Your task to perform on an android device: toggle notification dots Image 0: 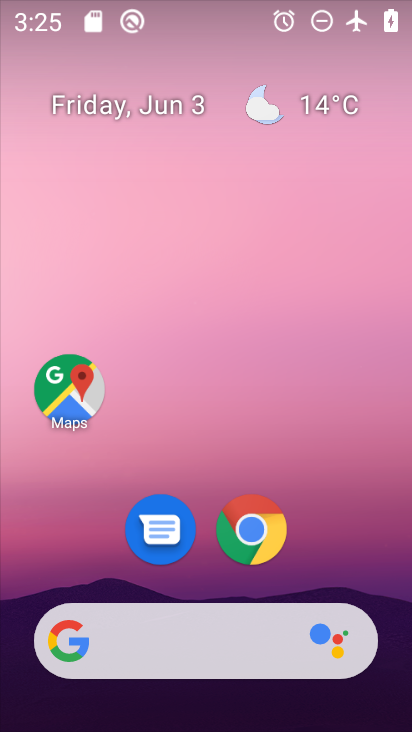
Step 0: drag from (354, 545) to (347, 159)
Your task to perform on an android device: toggle notification dots Image 1: 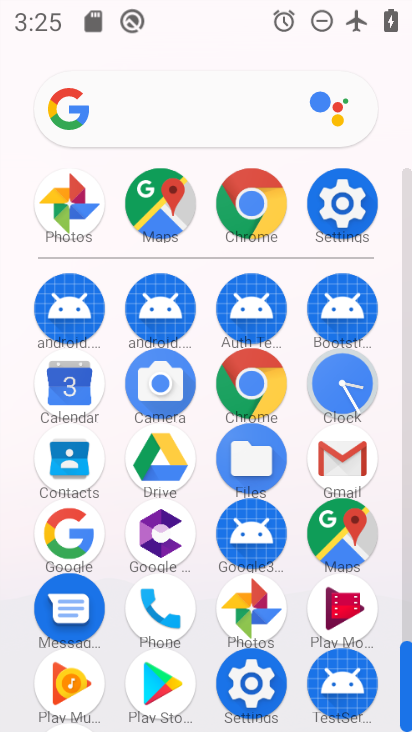
Step 1: click (341, 217)
Your task to perform on an android device: toggle notification dots Image 2: 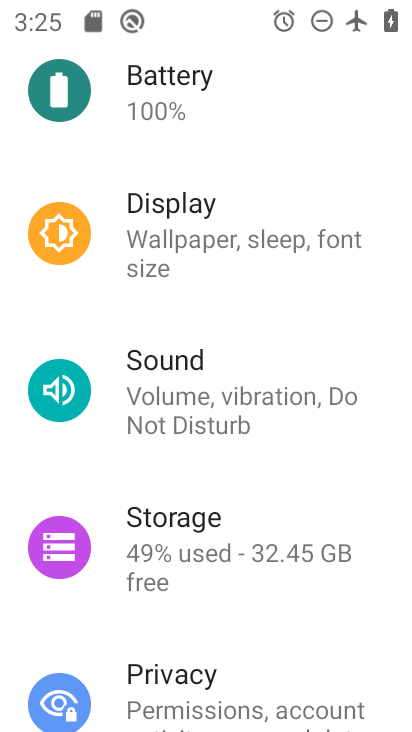
Step 2: drag from (370, 292) to (371, 394)
Your task to perform on an android device: toggle notification dots Image 3: 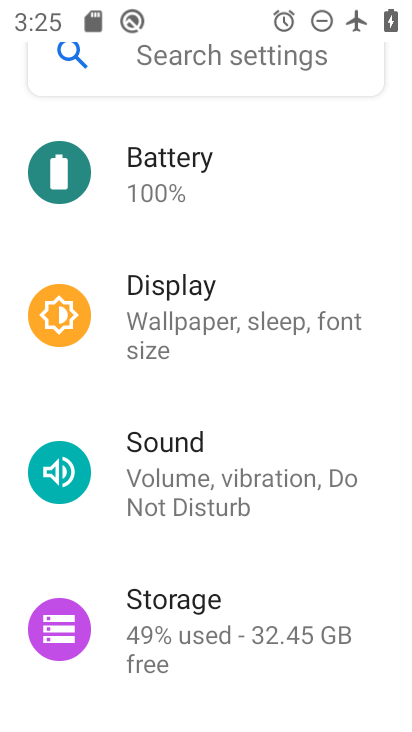
Step 3: drag from (369, 256) to (369, 369)
Your task to perform on an android device: toggle notification dots Image 4: 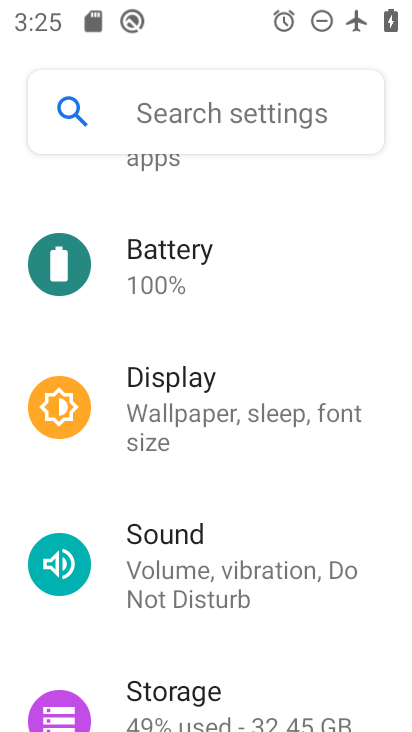
Step 4: drag from (374, 242) to (371, 354)
Your task to perform on an android device: toggle notification dots Image 5: 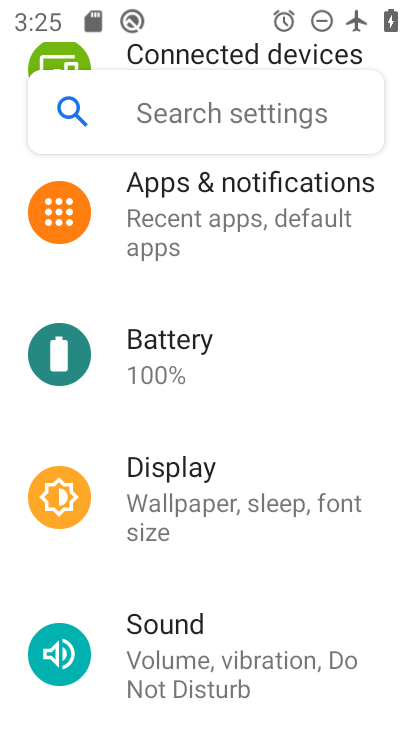
Step 5: drag from (361, 210) to (353, 357)
Your task to perform on an android device: toggle notification dots Image 6: 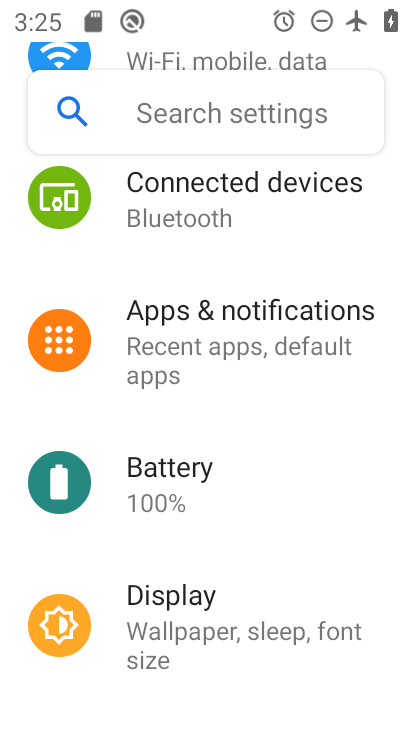
Step 6: click (269, 331)
Your task to perform on an android device: toggle notification dots Image 7: 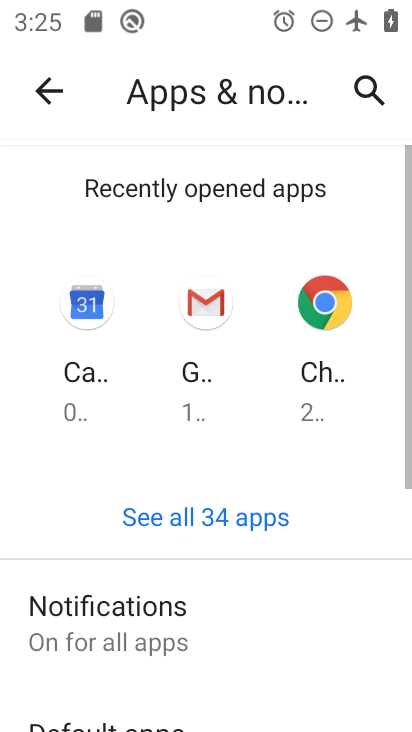
Step 7: drag from (279, 599) to (275, 364)
Your task to perform on an android device: toggle notification dots Image 8: 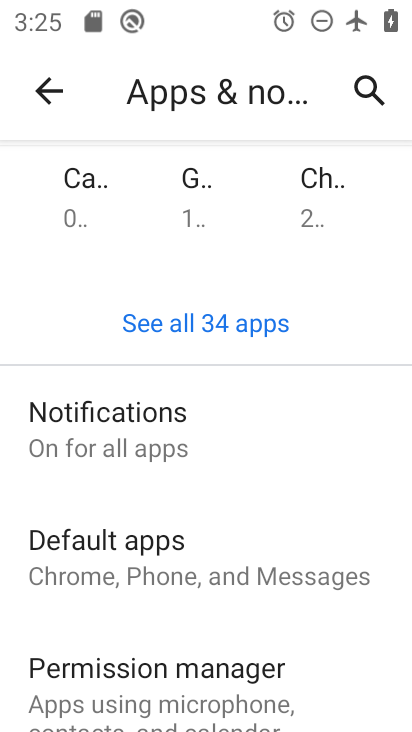
Step 8: click (128, 452)
Your task to perform on an android device: toggle notification dots Image 9: 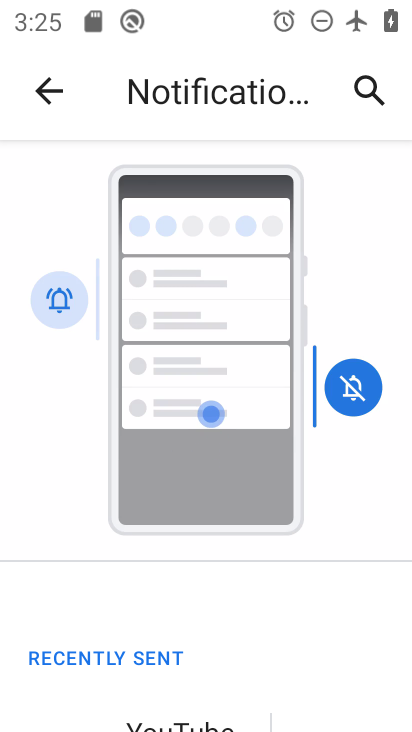
Step 9: drag from (323, 501) to (323, 299)
Your task to perform on an android device: toggle notification dots Image 10: 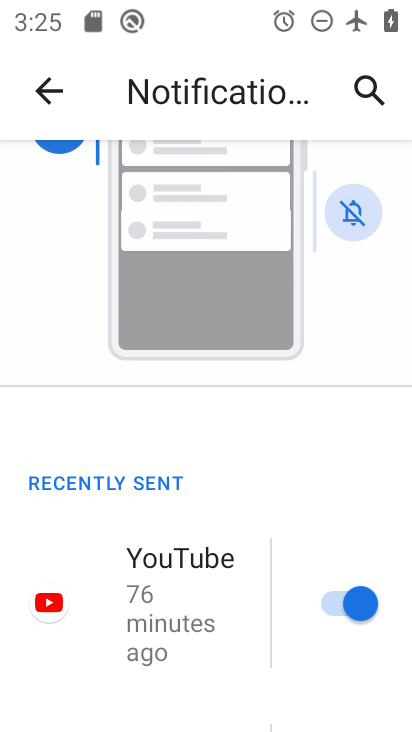
Step 10: drag from (356, 523) to (360, 362)
Your task to perform on an android device: toggle notification dots Image 11: 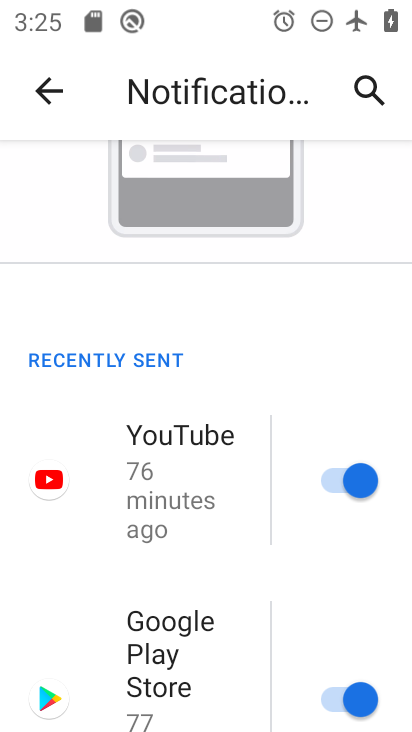
Step 11: drag from (356, 562) to (354, 380)
Your task to perform on an android device: toggle notification dots Image 12: 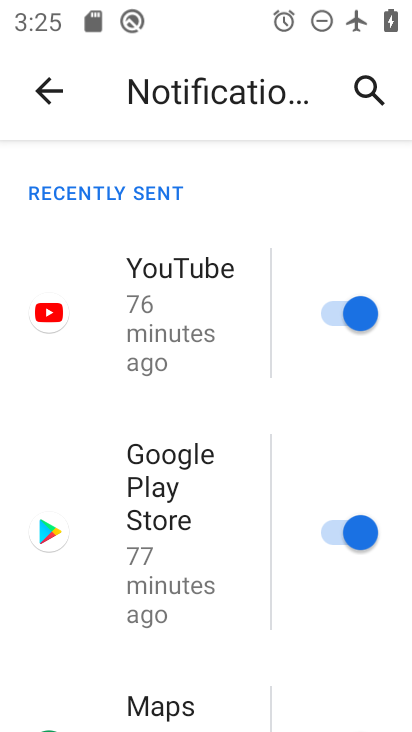
Step 12: drag from (357, 596) to (358, 437)
Your task to perform on an android device: toggle notification dots Image 13: 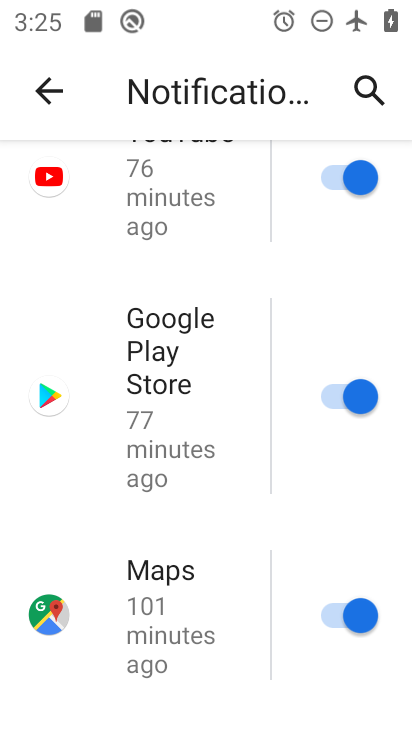
Step 13: drag from (310, 663) to (323, 402)
Your task to perform on an android device: toggle notification dots Image 14: 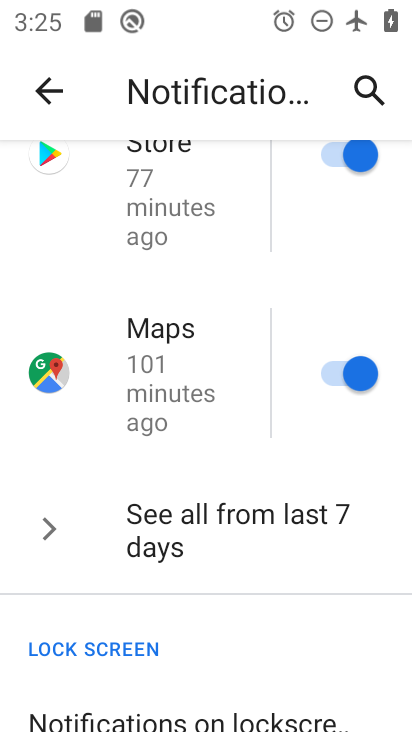
Step 14: drag from (318, 605) to (319, 410)
Your task to perform on an android device: toggle notification dots Image 15: 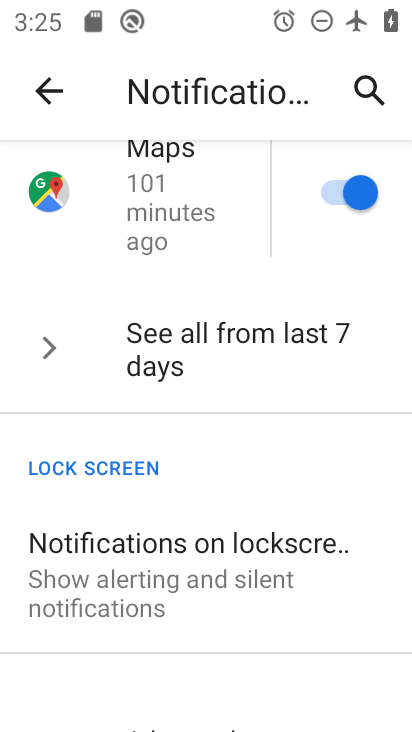
Step 15: drag from (311, 593) to (321, 364)
Your task to perform on an android device: toggle notification dots Image 16: 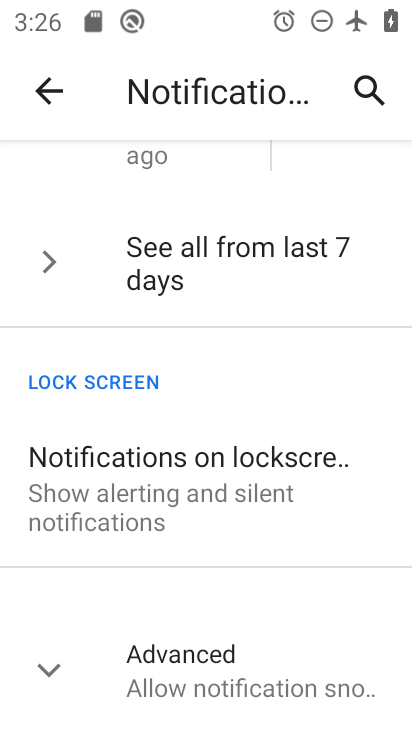
Step 16: click (251, 663)
Your task to perform on an android device: toggle notification dots Image 17: 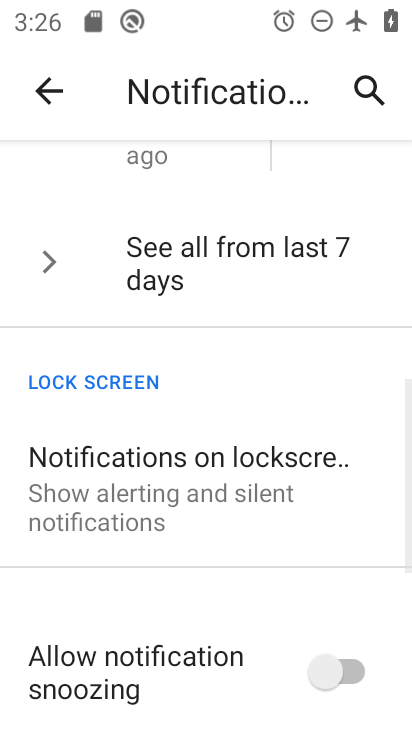
Step 17: drag from (249, 652) to (251, 460)
Your task to perform on an android device: toggle notification dots Image 18: 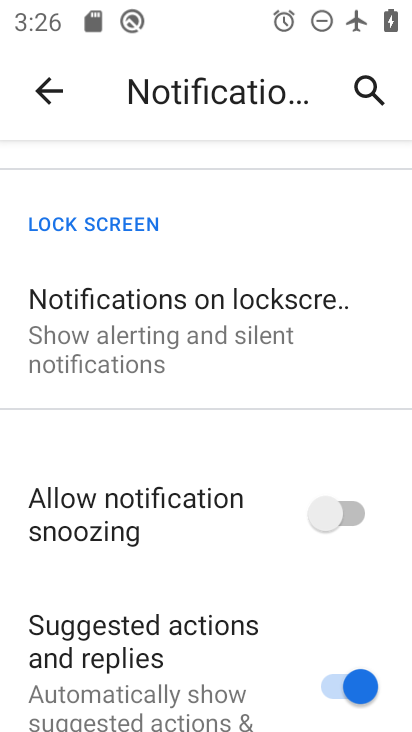
Step 18: drag from (265, 676) to (248, 438)
Your task to perform on an android device: toggle notification dots Image 19: 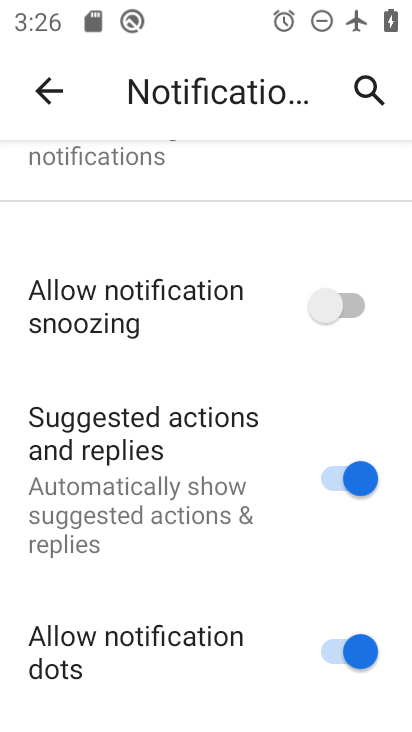
Step 19: click (357, 649)
Your task to perform on an android device: toggle notification dots Image 20: 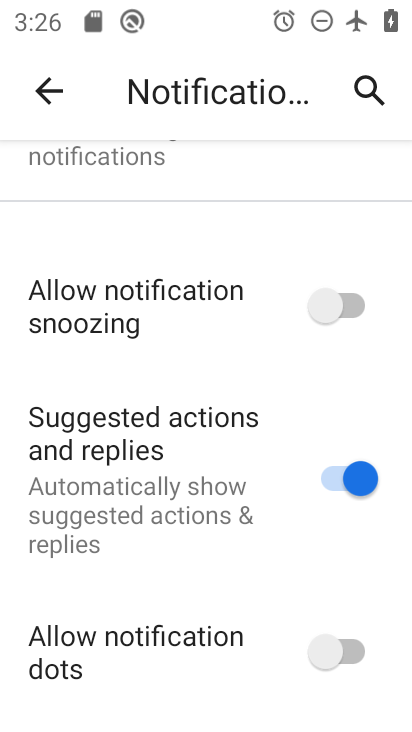
Step 20: task complete